Your task to perform on an android device: Find coffee shops on Maps Image 0: 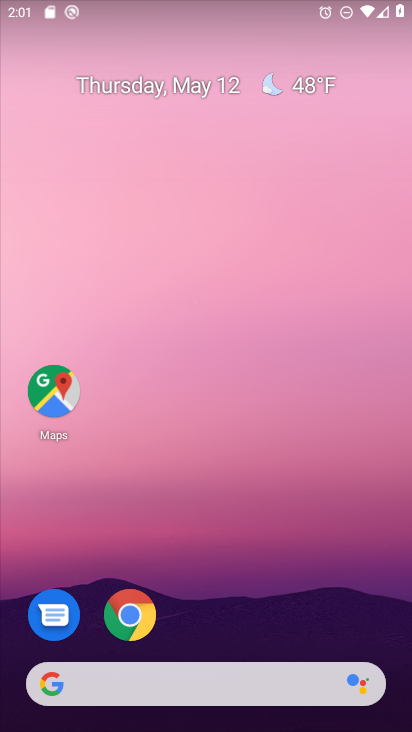
Step 0: drag from (266, 658) to (288, 43)
Your task to perform on an android device: Find coffee shops on Maps Image 1: 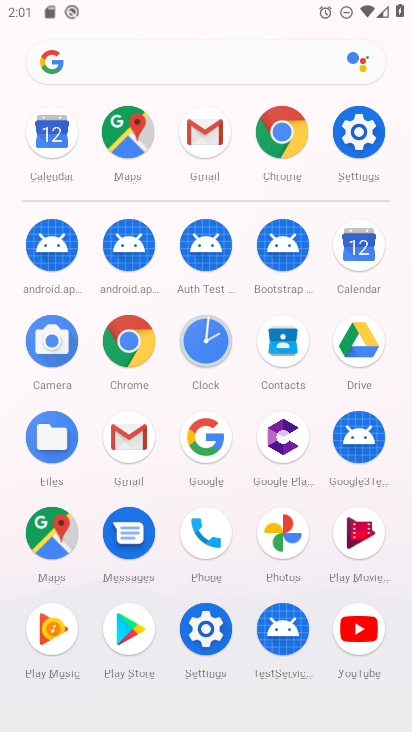
Step 1: click (48, 542)
Your task to perform on an android device: Find coffee shops on Maps Image 2: 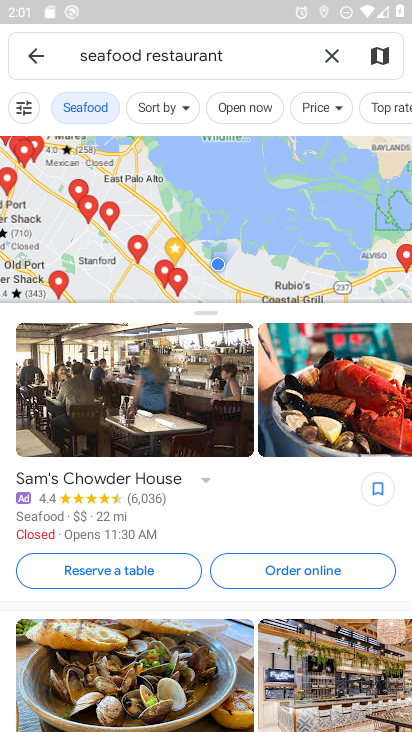
Step 2: click (322, 51)
Your task to perform on an android device: Find coffee shops on Maps Image 3: 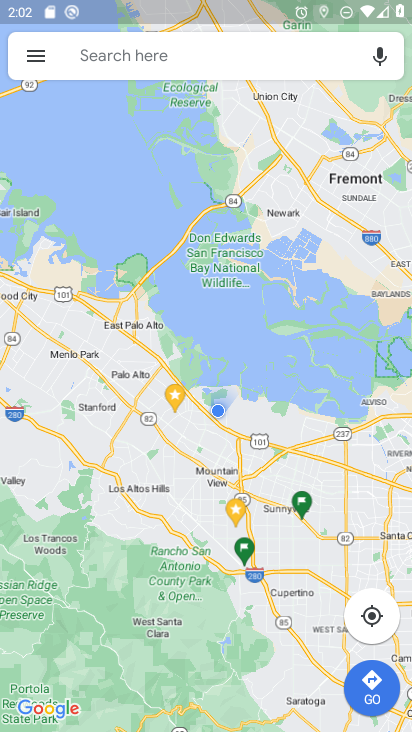
Step 3: click (262, 58)
Your task to perform on an android device: Find coffee shops on Maps Image 4: 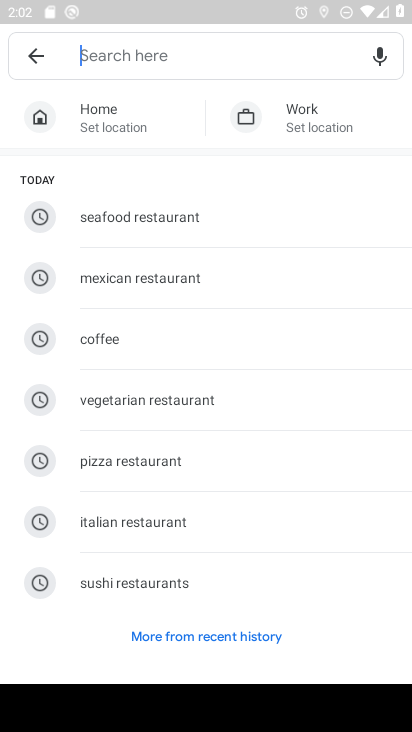
Step 4: type "coffee shops"
Your task to perform on an android device: Find coffee shops on Maps Image 5: 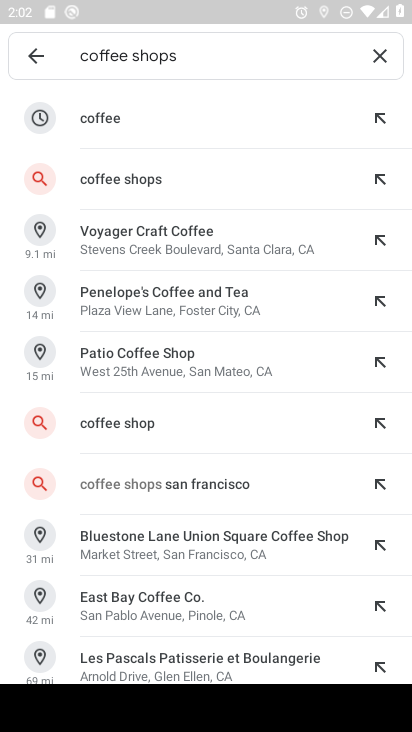
Step 5: click (174, 169)
Your task to perform on an android device: Find coffee shops on Maps Image 6: 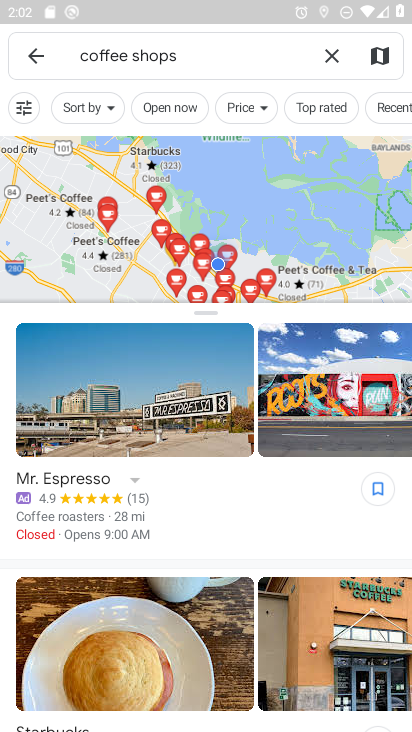
Step 6: task complete